Your task to perform on an android device: check data usage Image 0: 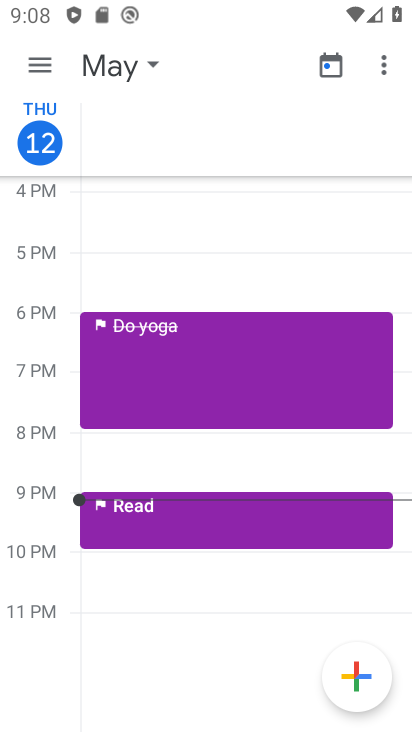
Step 0: press home button
Your task to perform on an android device: check data usage Image 1: 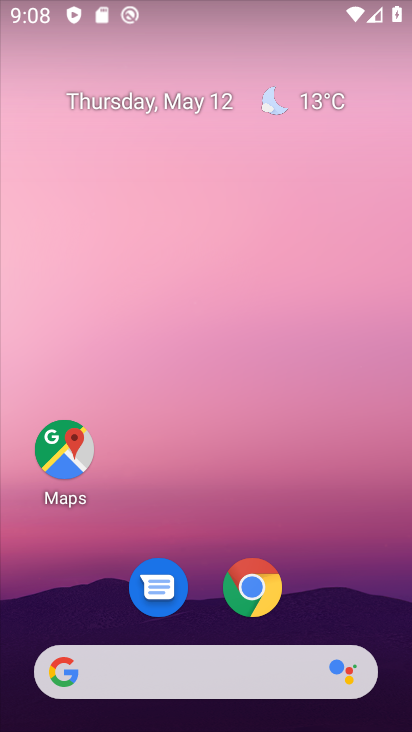
Step 1: drag from (348, 413) to (327, 227)
Your task to perform on an android device: check data usage Image 2: 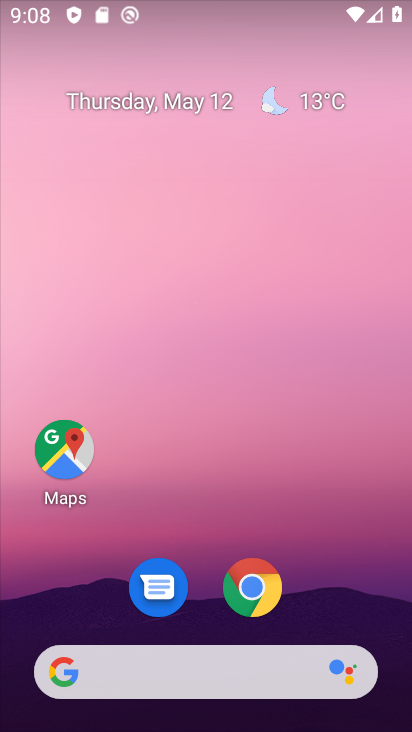
Step 2: drag from (342, 576) to (366, 173)
Your task to perform on an android device: check data usage Image 3: 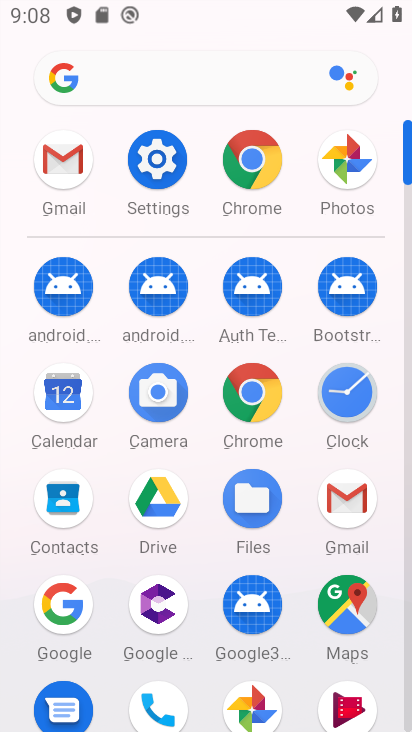
Step 3: click (165, 175)
Your task to perform on an android device: check data usage Image 4: 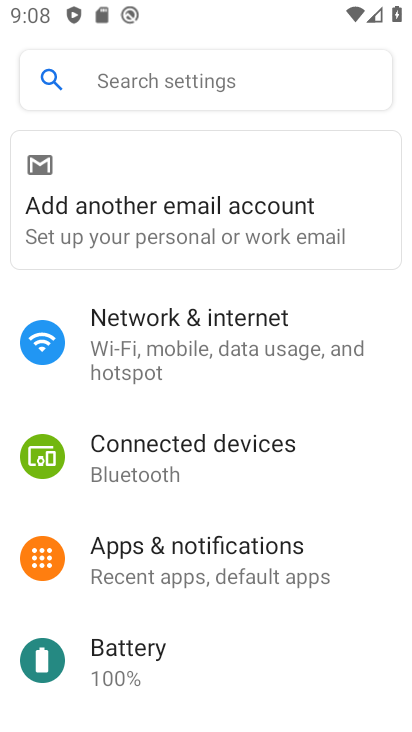
Step 4: click (173, 338)
Your task to perform on an android device: check data usage Image 5: 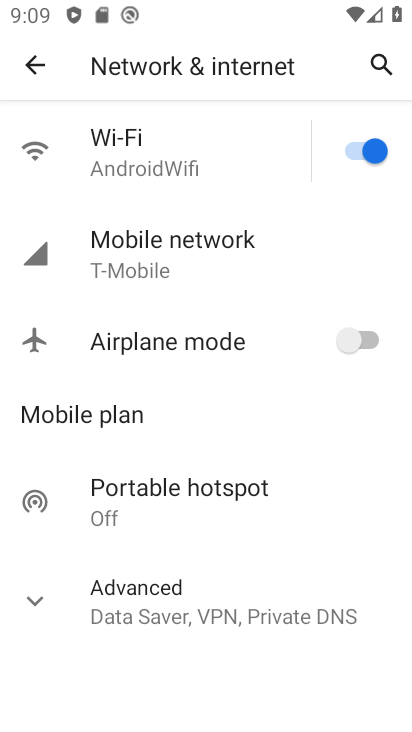
Step 5: click (149, 174)
Your task to perform on an android device: check data usage Image 6: 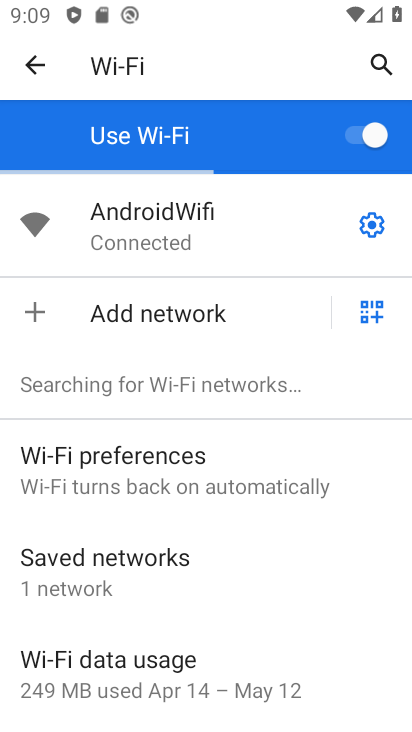
Step 6: task complete